Your task to perform on an android device: Go to display settings Image 0: 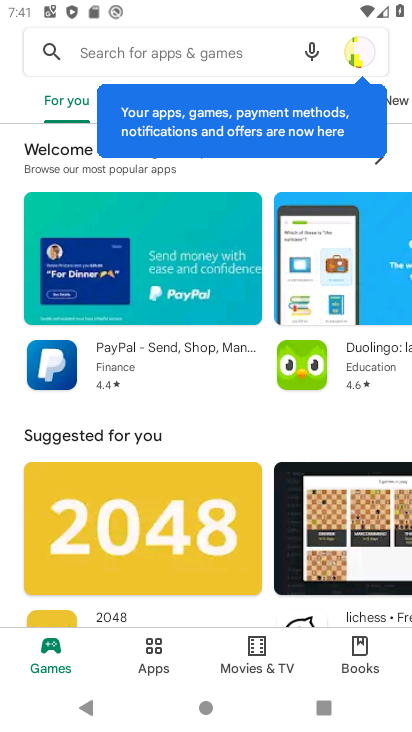
Step 0: press home button
Your task to perform on an android device: Go to display settings Image 1: 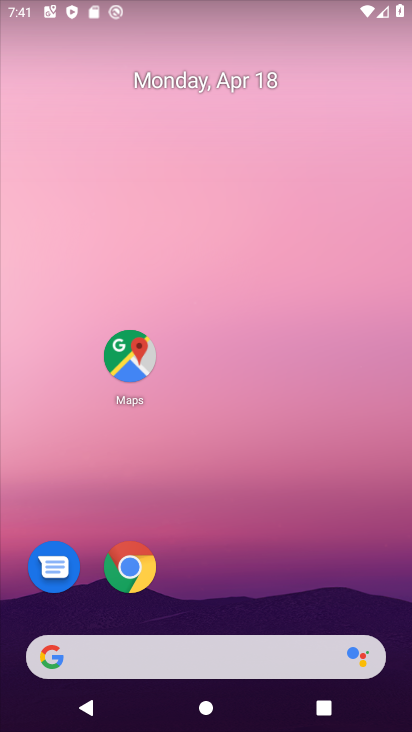
Step 1: drag from (240, 642) to (286, 101)
Your task to perform on an android device: Go to display settings Image 2: 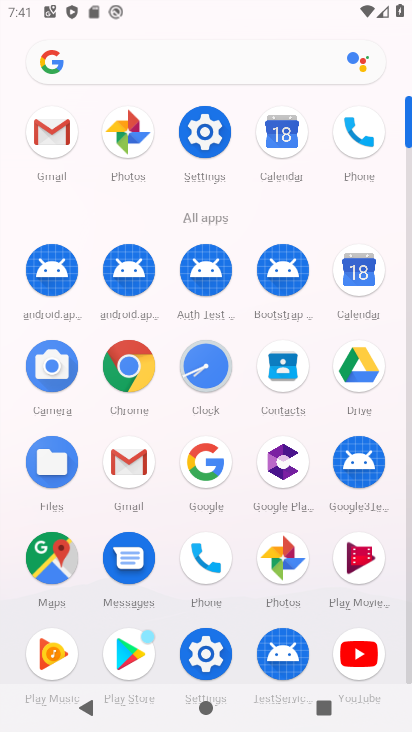
Step 2: click (204, 665)
Your task to perform on an android device: Go to display settings Image 3: 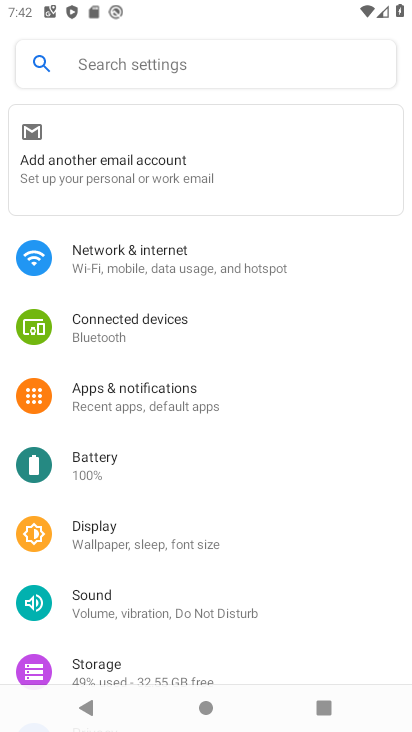
Step 3: click (143, 518)
Your task to perform on an android device: Go to display settings Image 4: 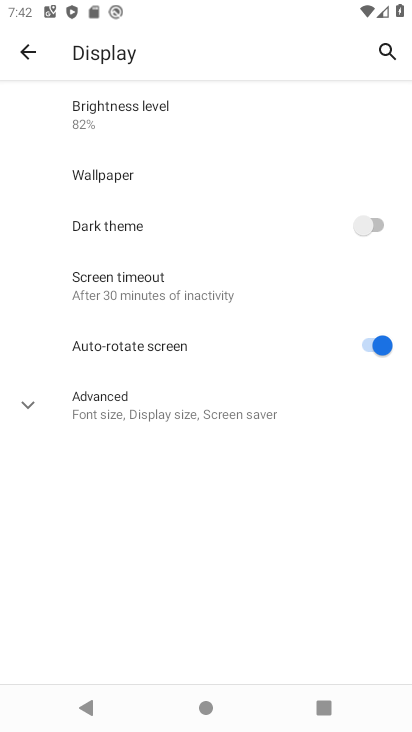
Step 4: click (118, 405)
Your task to perform on an android device: Go to display settings Image 5: 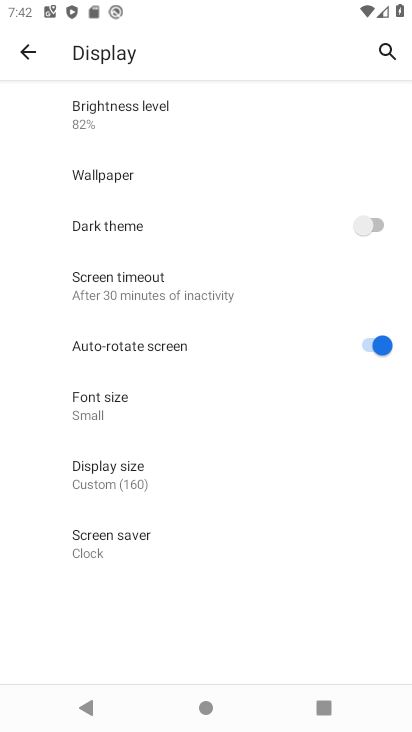
Step 5: task complete